Your task to perform on an android device: turn off location Image 0: 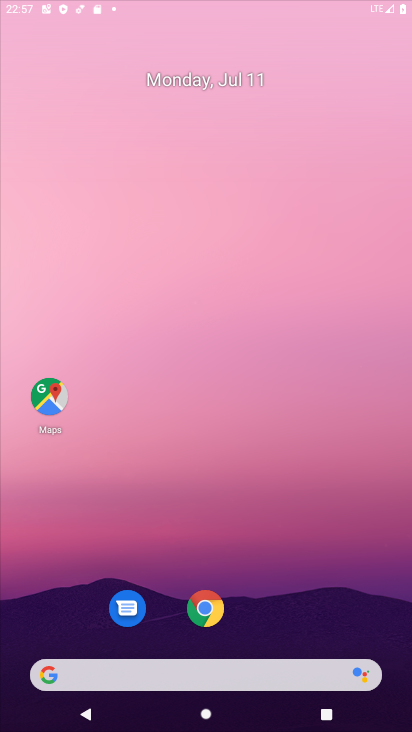
Step 0: drag from (180, 3) to (222, 6)
Your task to perform on an android device: turn off location Image 1: 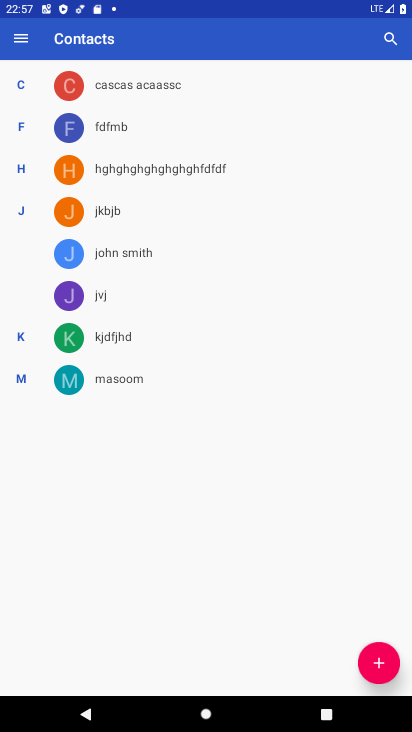
Step 1: press home button
Your task to perform on an android device: turn off location Image 2: 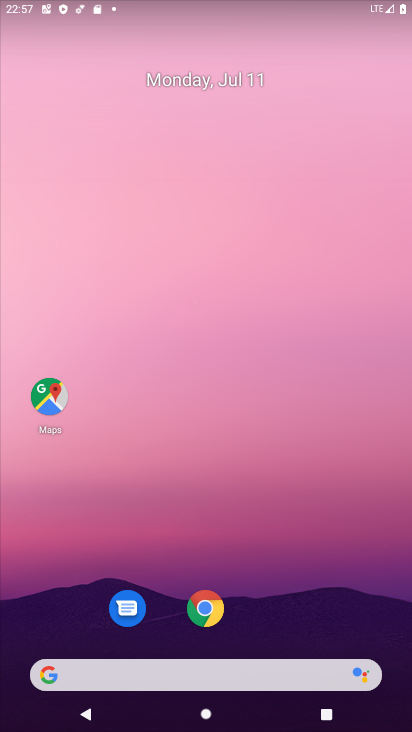
Step 2: drag from (23, 688) to (248, 14)
Your task to perform on an android device: turn off location Image 3: 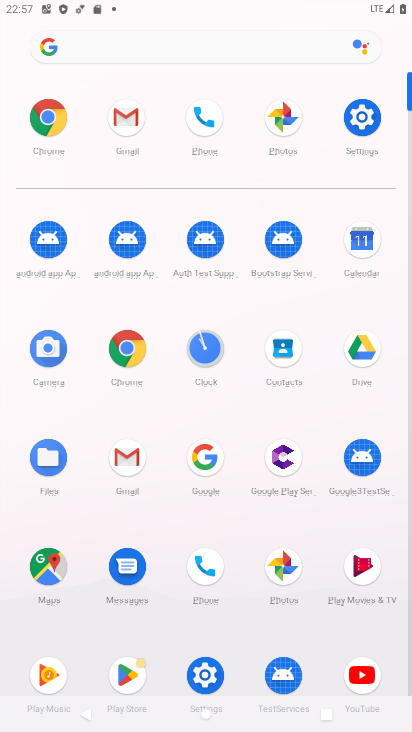
Step 3: click (200, 668)
Your task to perform on an android device: turn off location Image 4: 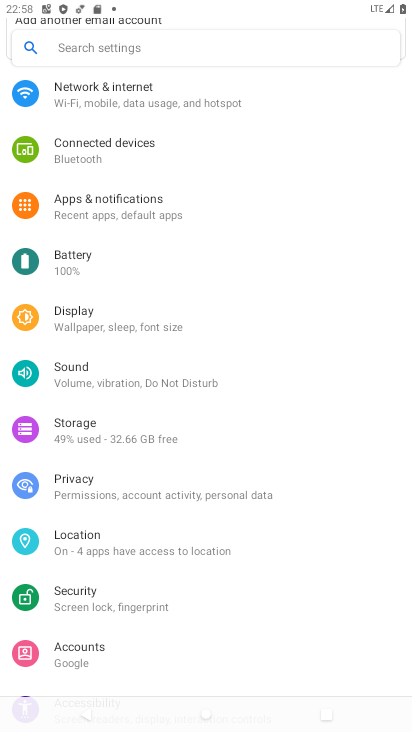
Step 4: click (64, 530)
Your task to perform on an android device: turn off location Image 5: 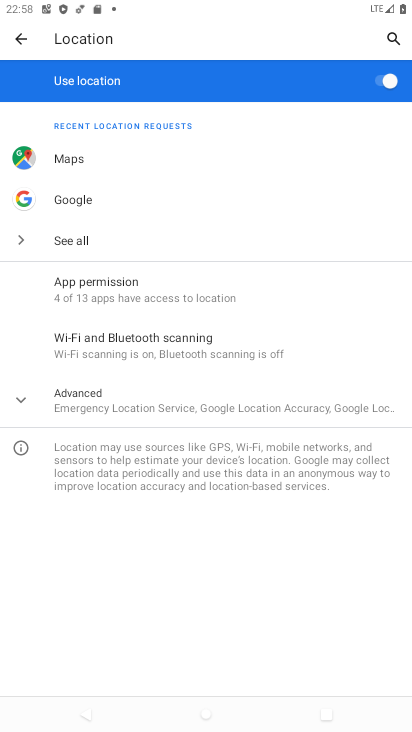
Step 5: click (391, 82)
Your task to perform on an android device: turn off location Image 6: 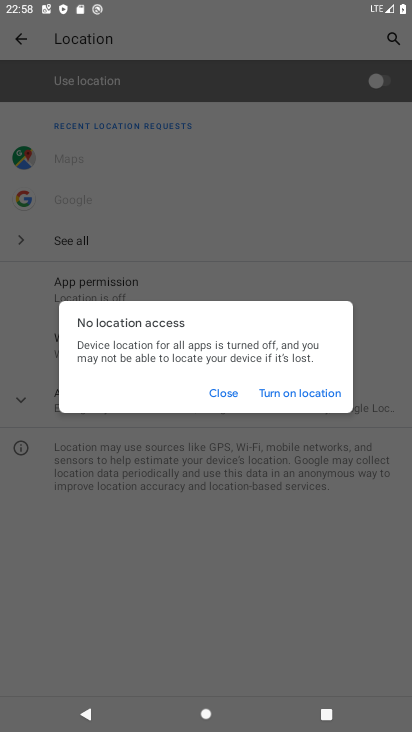
Step 6: task complete